Your task to perform on an android device: Toggle the flashlight Image 0: 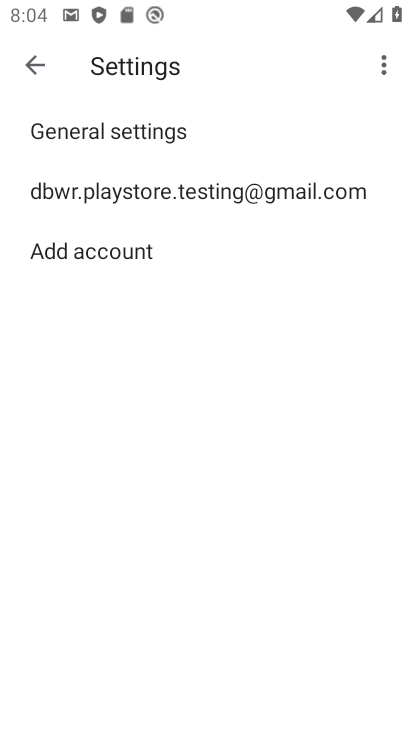
Step 0: press home button
Your task to perform on an android device: Toggle the flashlight Image 1: 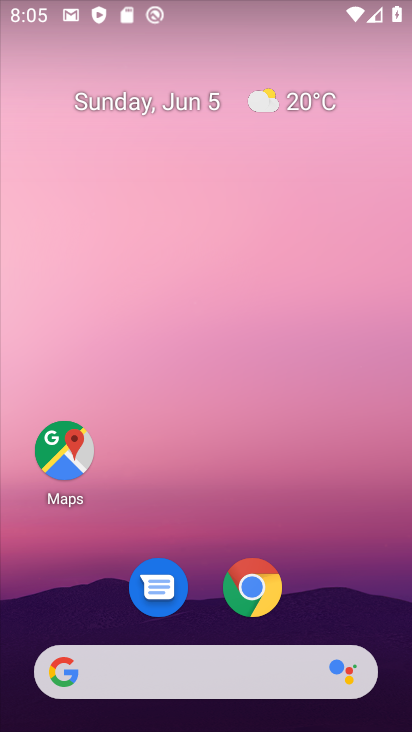
Step 1: task complete